Your task to perform on an android device: Show me the alarms in the clock app Image 0: 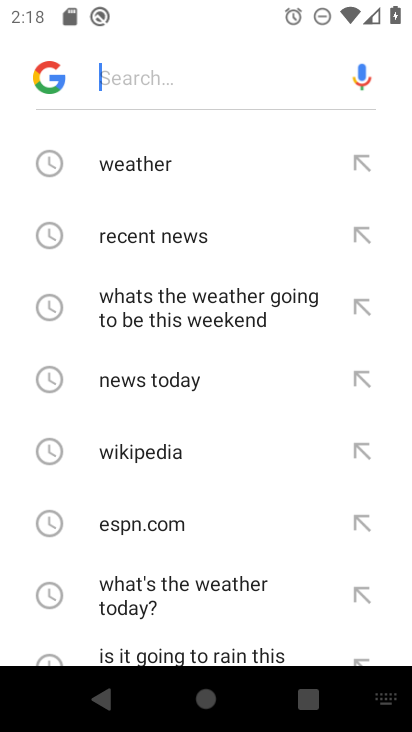
Step 0: press home button
Your task to perform on an android device: Show me the alarms in the clock app Image 1: 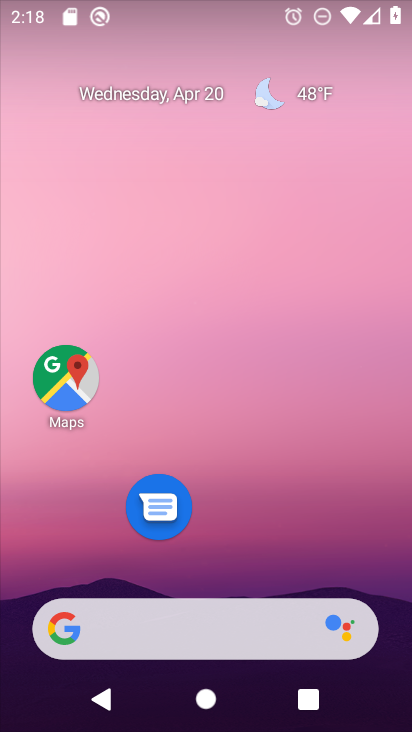
Step 1: drag from (209, 720) to (209, 139)
Your task to perform on an android device: Show me the alarms in the clock app Image 2: 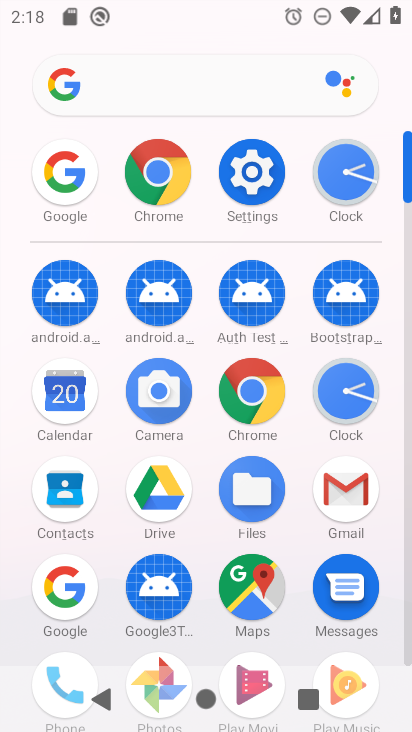
Step 2: click (345, 395)
Your task to perform on an android device: Show me the alarms in the clock app Image 3: 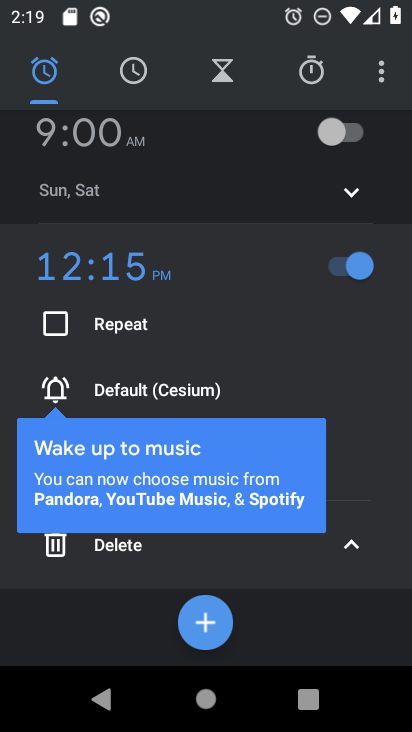
Step 3: task complete